Your task to perform on an android device: Clear all items from cart on amazon. Search for "razer blade" on amazon, select the first entry, add it to the cart, then select checkout. Image 0: 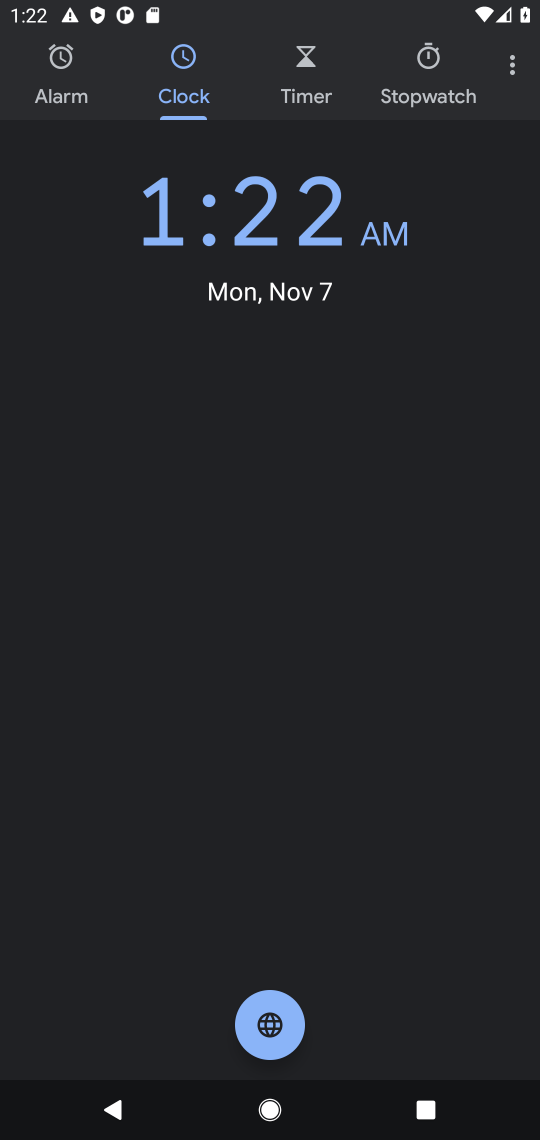
Step 0: press home button
Your task to perform on an android device: Clear all items from cart on amazon. Search for "razer blade" on amazon, select the first entry, add it to the cart, then select checkout. Image 1: 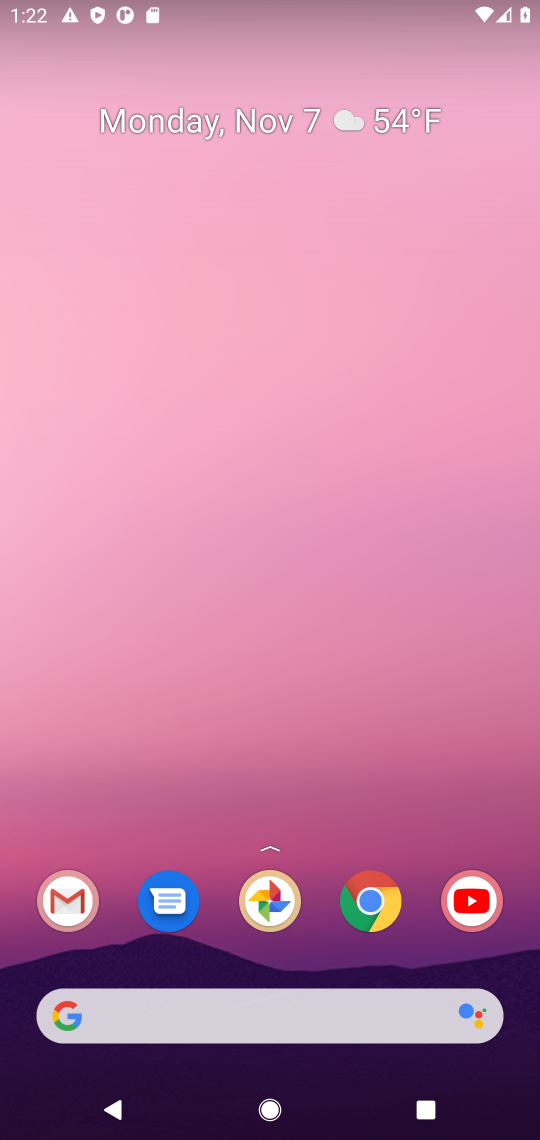
Step 1: click (360, 888)
Your task to perform on an android device: Clear all items from cart on amazon. Search for "razer blade" on amazon, select the first entry, add it to the cart, then select checkout. Image 2: 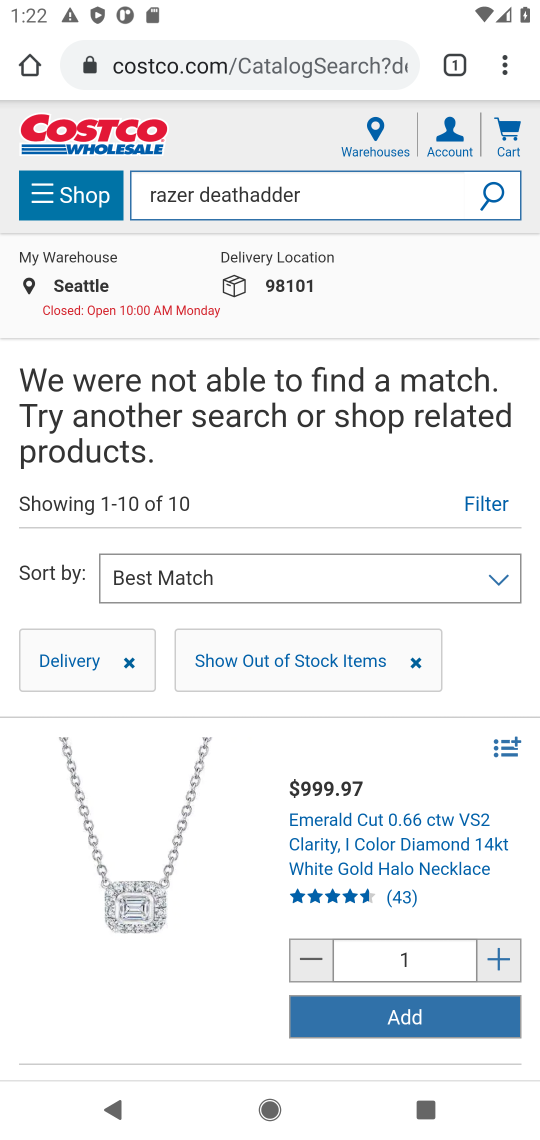
Step 2: click (253, 56)
Your task to perform on an android device: Clear all items from cart on amazon. Search for "razer blade" on amazon, select the first entry, add it to the cart, then select checkout. Image 3: 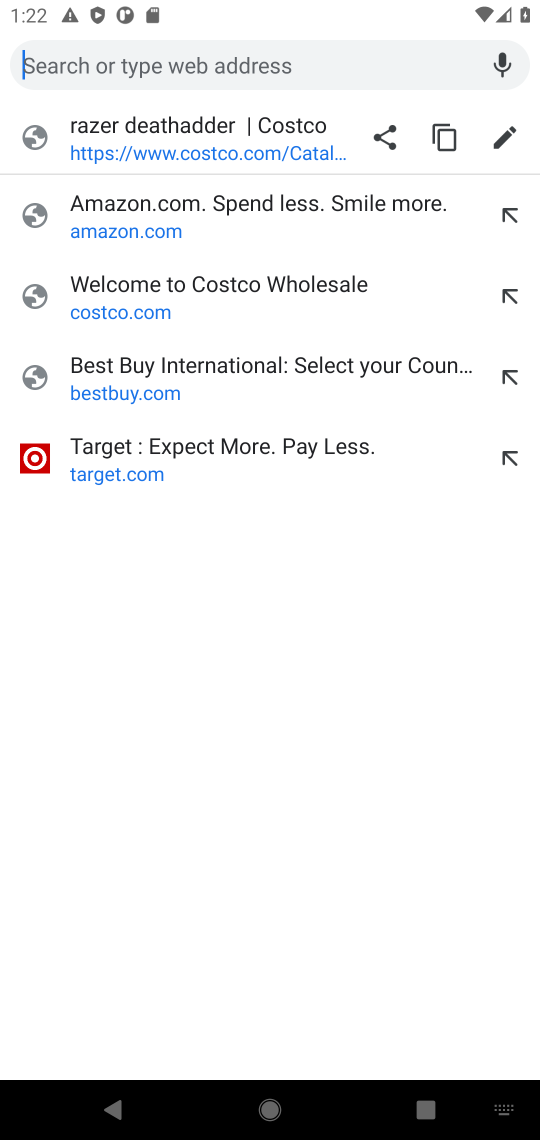
Step 3: click (139, 230)
Your task to perform on an android device: Clear all items from cart on amazon. Search for "razer blade" on amazon, select the first entry, add it to the cart, then select checkout. Image 4: 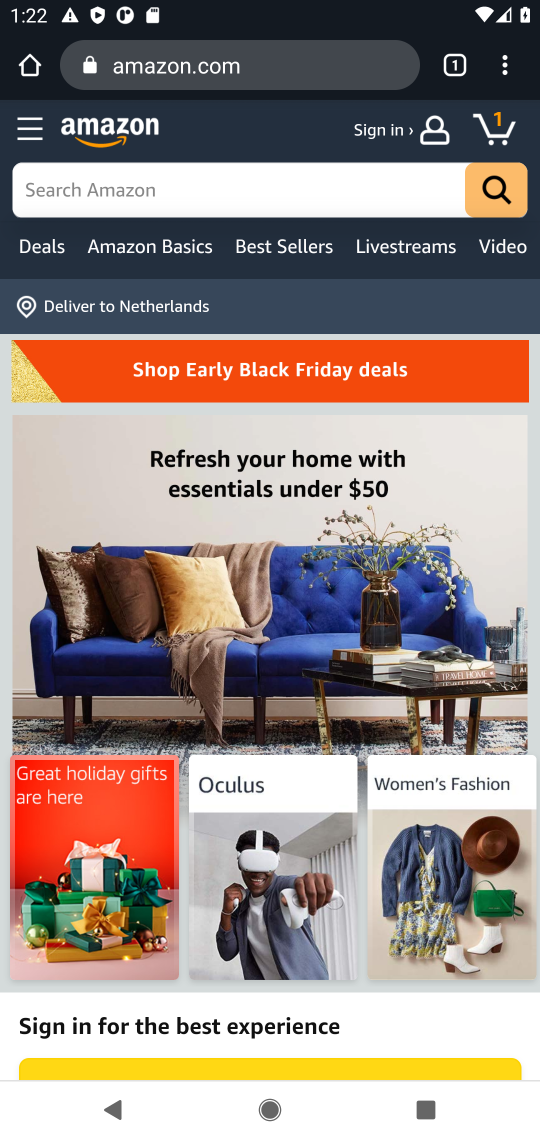
Step 4: click (488, 134)
Your task to perform on an android device: Clear all items from cart on amazon. Search for "razer blade" on amazon, select the first entry, add it to the cart, then select checkout. Image 5: 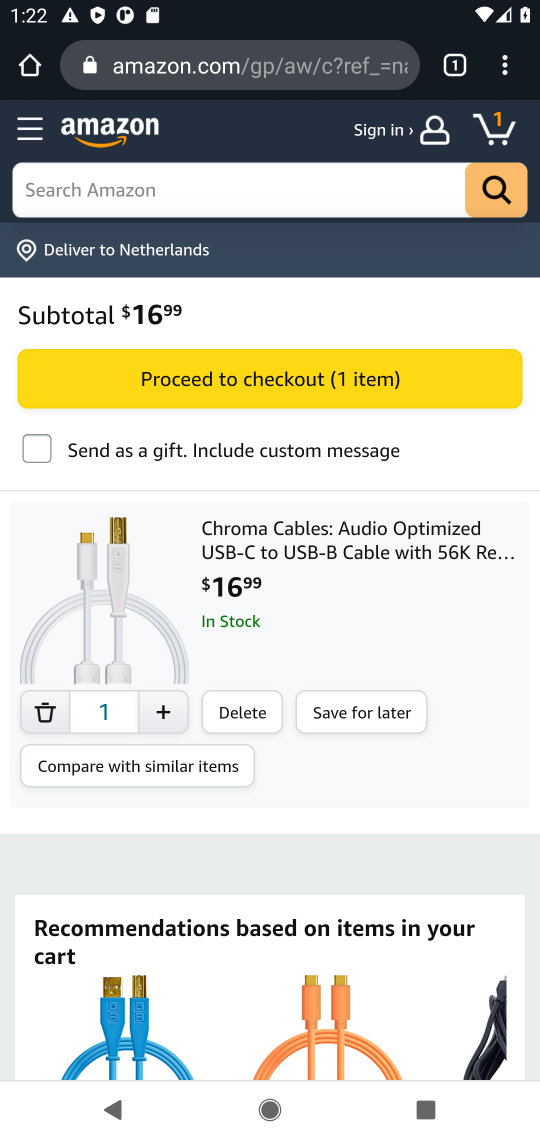
Step 5: click (237, 713)
Your task to perform on an android device: Clear all items from cart on amazon. Search for "razer blade" on amazon, select the first entry, add it to the cart, then select checkout. Image 6: 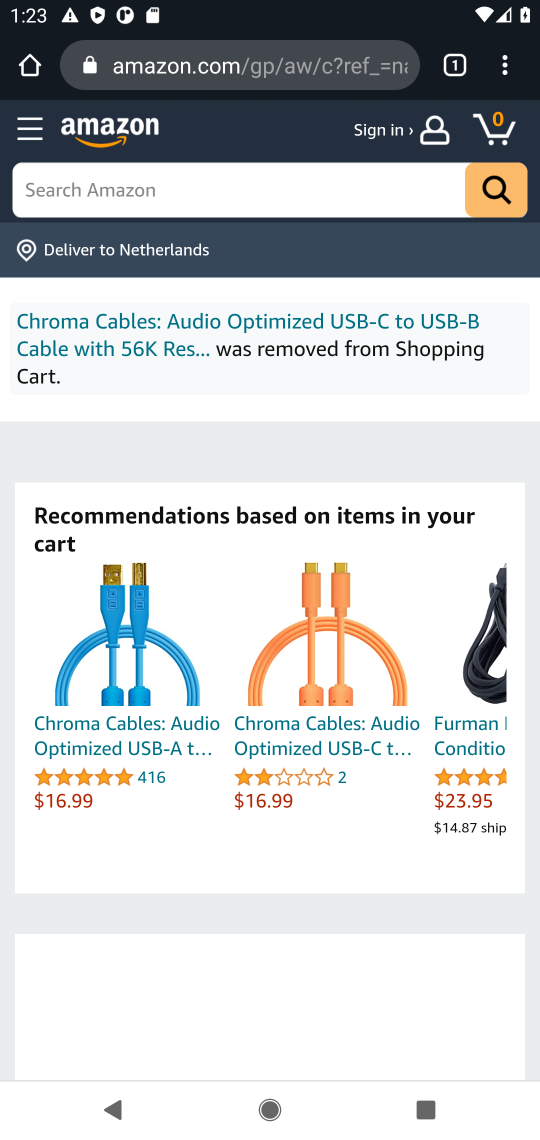
Step 6: click (177, 188)
Your task to perform on an android device: Clear all items from cart on amazon. Search for "razer blade" on amazon, select the first entry, add it to the cart, then select checkout. Image 7: 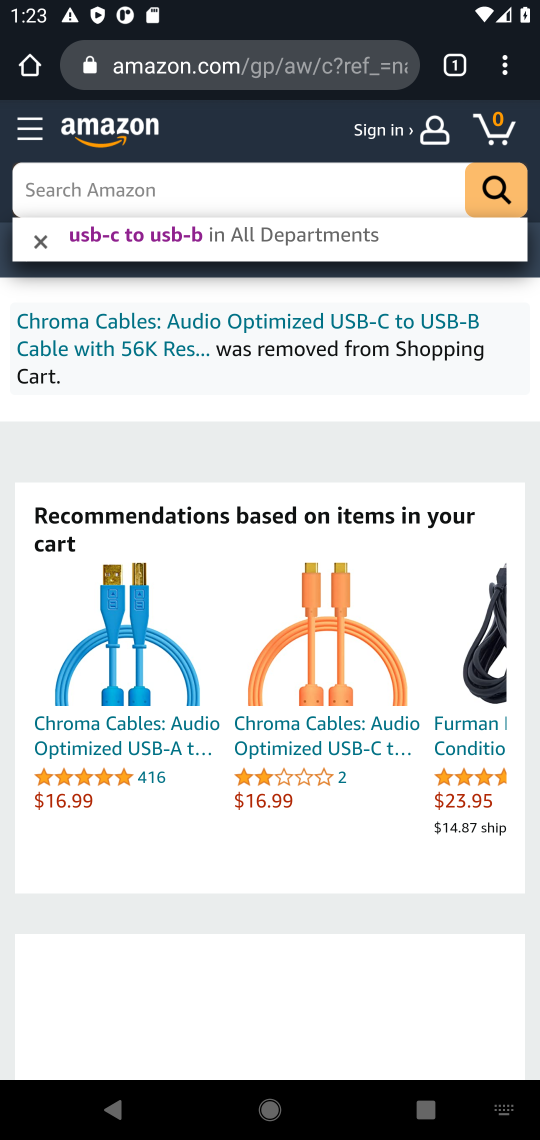
Step 7: type "razer blade"
Your task to perform on an android device: Clear all items from cart on amazon. Search for "razer blade" on amazon, select the first entry, add it to the cart, then select checkout. Image 8: 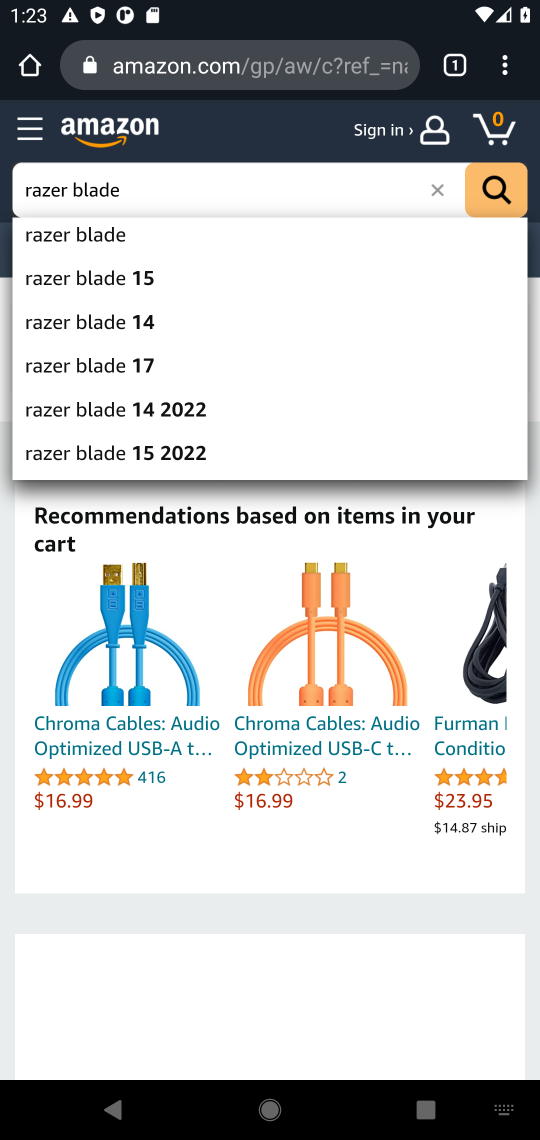
Step 8: click (95, 245)
Your task to perform on an android device: Clear all items from cart on amazon. Search for "razer blade" on amazon, select the first entry, add it to the cart, then select checkout. Image 9: 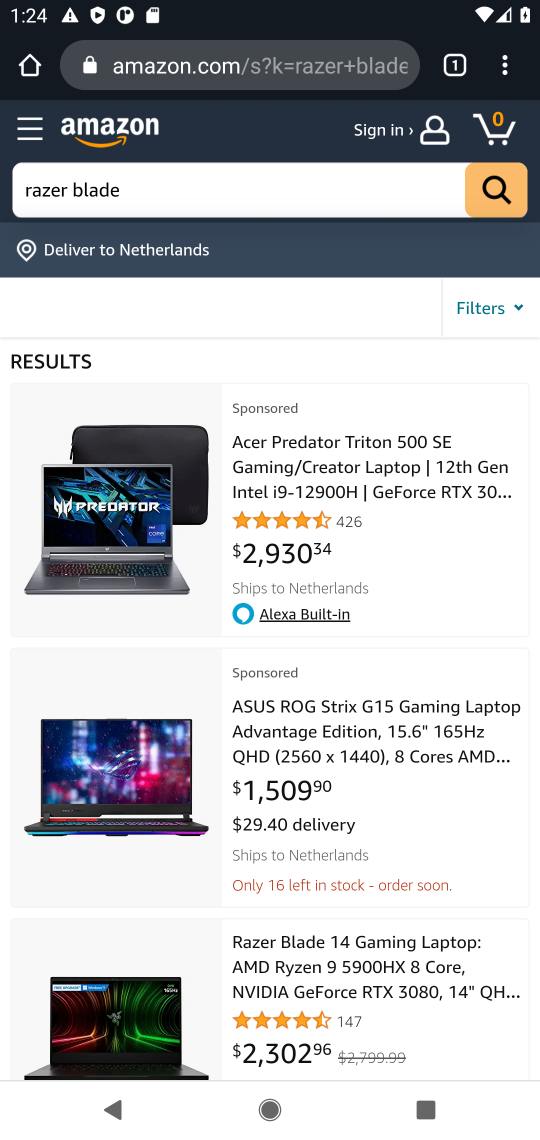
Step 9: task complete